Your task to perform on an android device: add a contact Image 0: 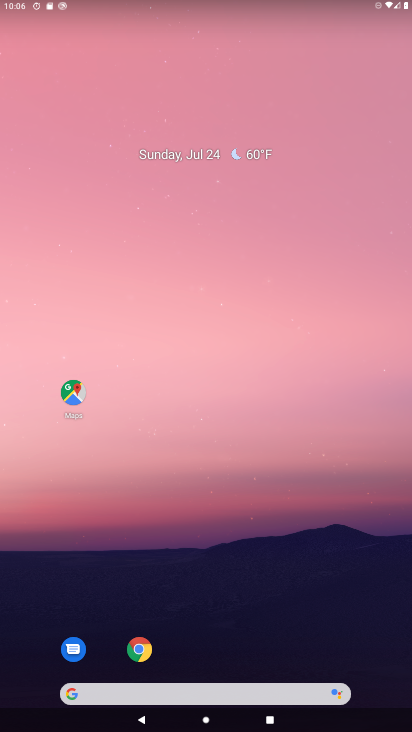
Step 0: drag from (335, 624) to (219, 126)
Your task to perform on an android device: add a contact Image 1: 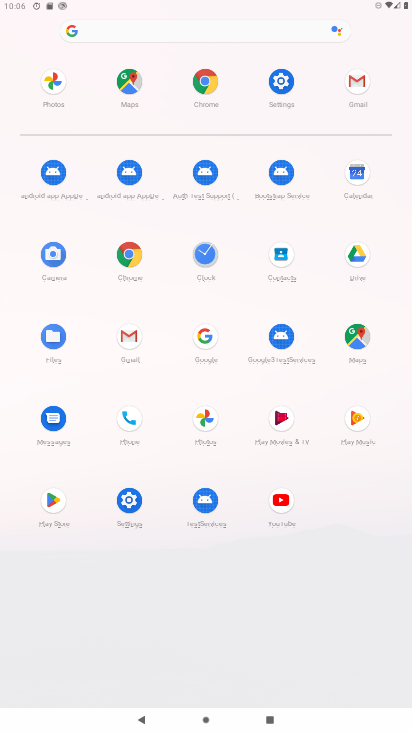
Step 1: click (283, 257)
Your task to perform on an android device: add a contact Image 2: 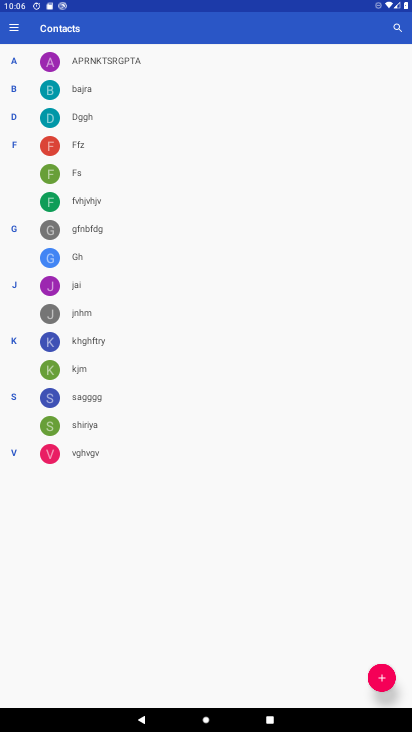
Step 2: click (383, 680)
Your task to perform on an android device: add a contact Image 3: 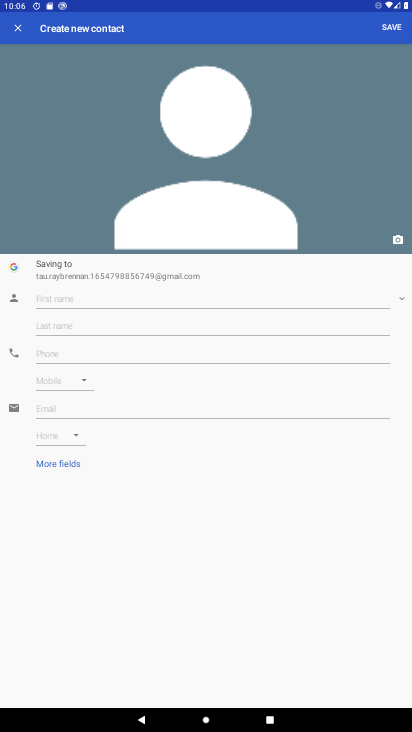
Step 3: click (123, 302)
Your task to perform on an android device: add a contact Image 4: 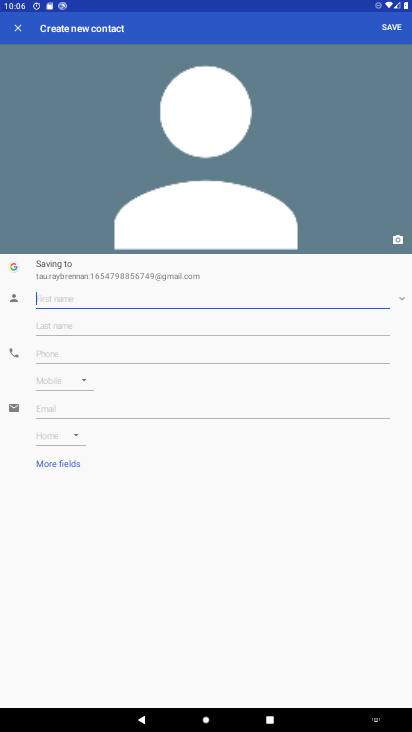
Step 4: type "uopol"
Your task to perform on an android device: add a contact Image 5: 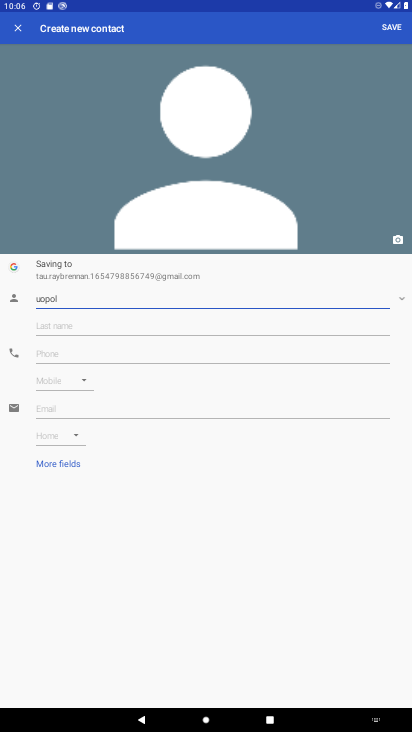
Step 5: click (392, 29)
Your task to perform on an android device: add a contact Image 6: 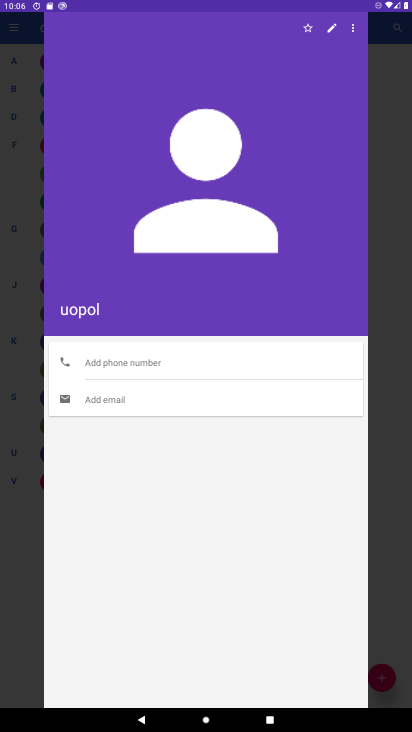
Step 6: task complete